Your task to perform on an android device: turn on airplane mode Image 0: 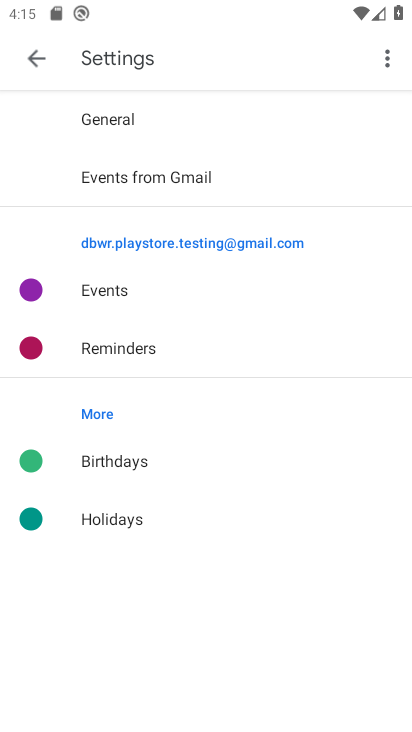
Step 0: press home button
Your task to perform on an android device: turn on airplane mode Image 1: 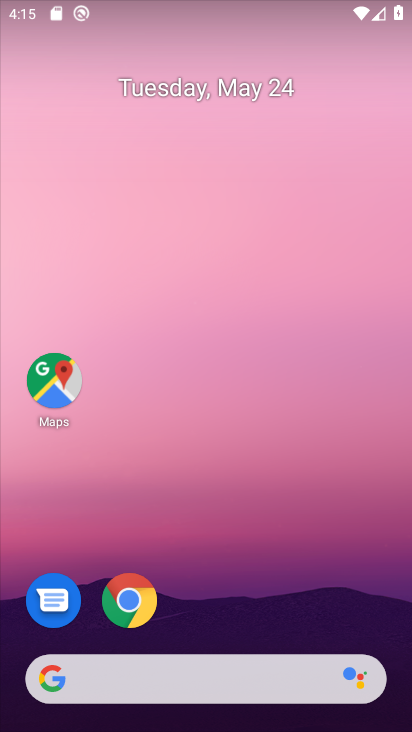
Step 1: drag from (144, 652) to (166, 56)
Your task to perform on an android device: turn on airplane mode Image 2: 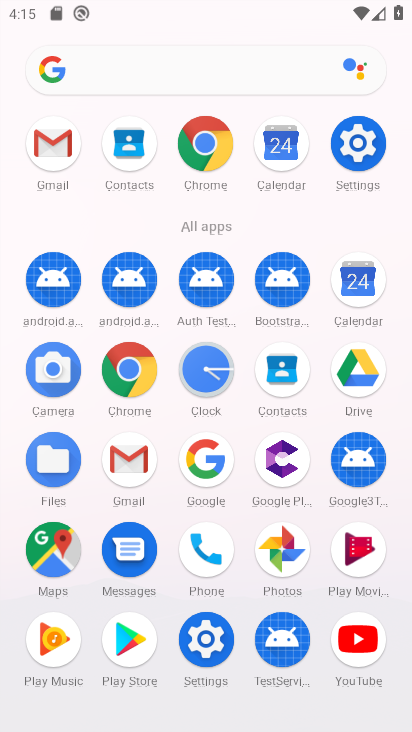
Step 2: click (376, 138)
Your task to perform on an android device: turn on airplane mode Image 3: 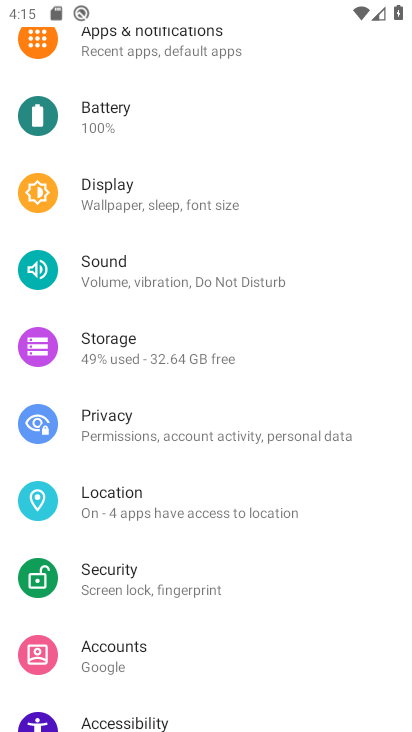
Step 3: drag from (208, 76) to (239, 627)
Your task to perform on an android device: turn on airplane mode Image 4: 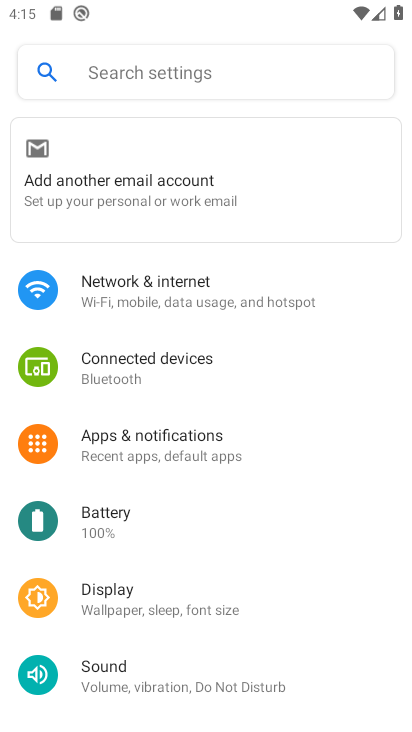
Step 4: click (184, 303)
Your task to perform on an android device: turn on airplane mode Image 5: 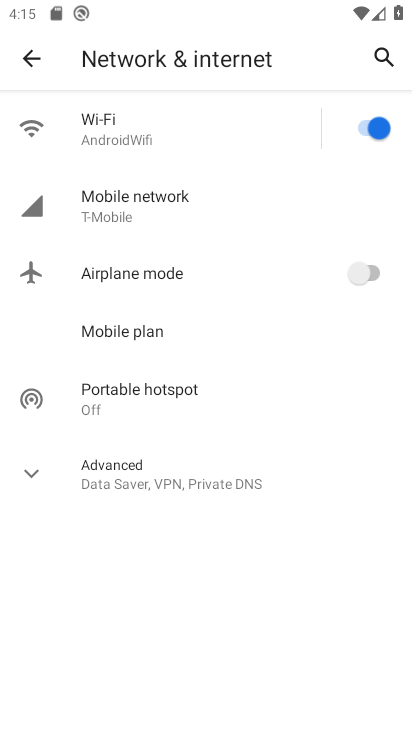
Step 5: click (374, 270)
Your task to perform on an android device: turn on airplane mode Image 6: 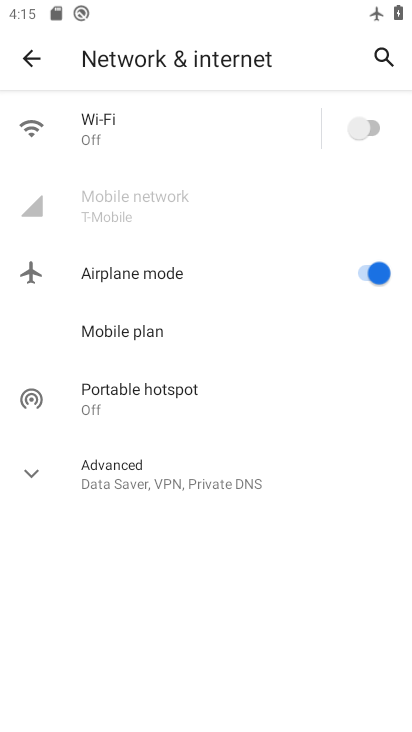
Step 6: task complete